Your task to perform on an android device: Go to Google Image 0: 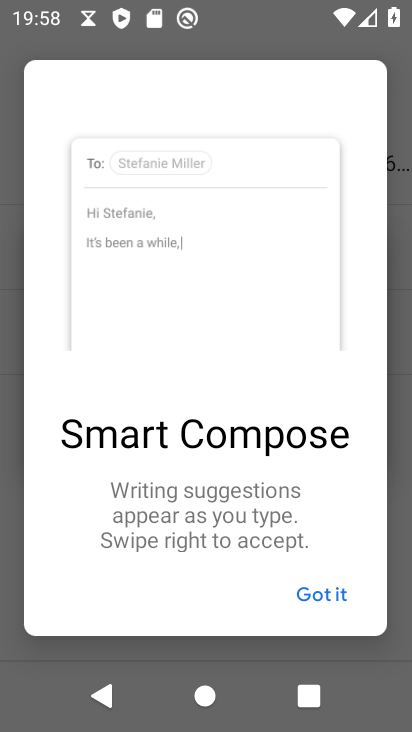
Step 0: press home button
Your task to perform on an android device: Go to Google Image 1: 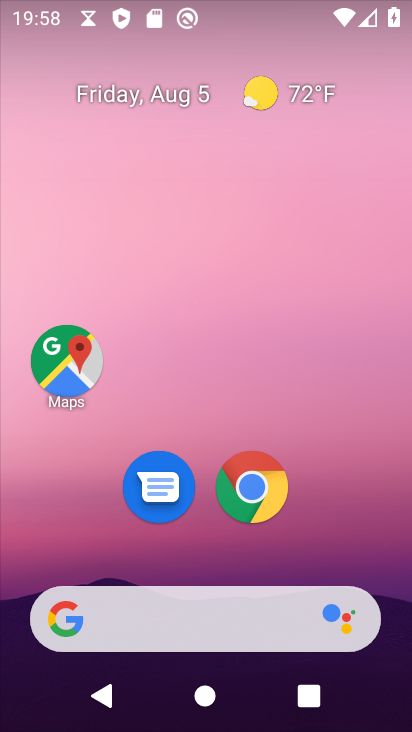
Step 1: click (54, 610)
Your task to perform on an android device: Go to Google Image 2: 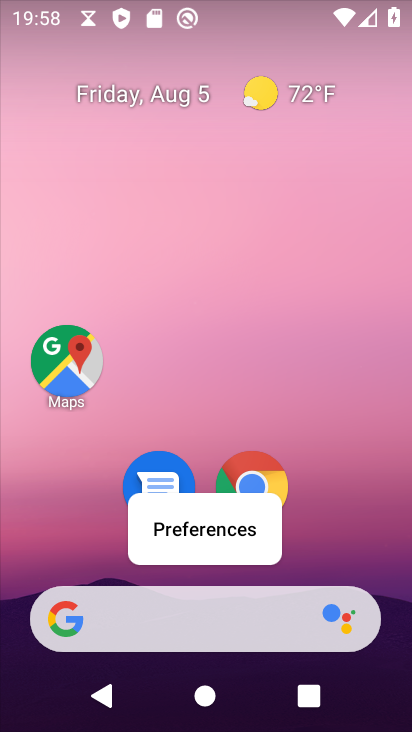
Step 2: click (55, 629)
Your task to perform on an android device: Go to Google Image 3: 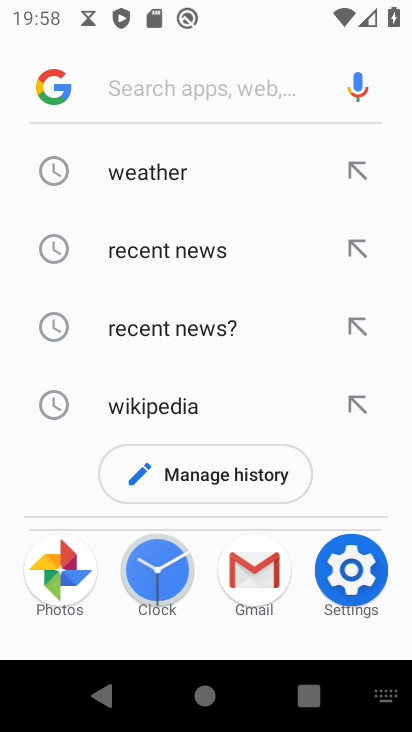
Step 3: task complete